Your task to perform on an android device: Show me productivity apps on the Play Store Image 0: 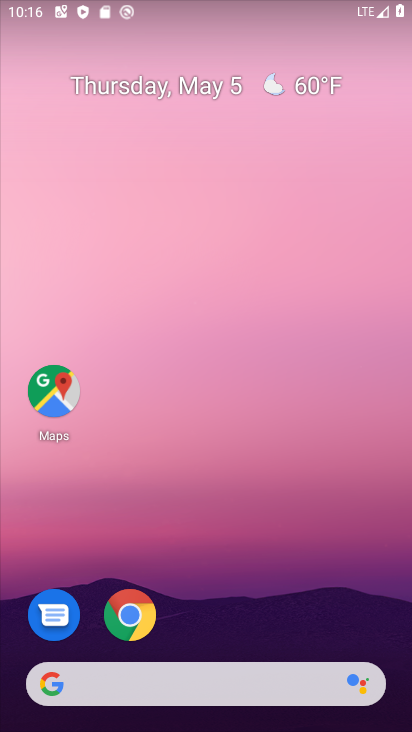
Step 0: drag from (223, 597) to (342, 82)
Your task to perform on an android device: Show me productivity apps on the Play Store Image 1: 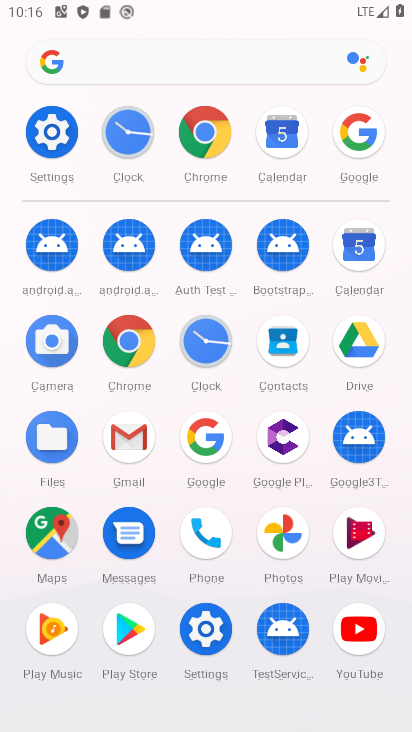
Step 1: click (123, 630)
Your task to perform on an android device: Show me productivity apps on the Play Store Image 2: 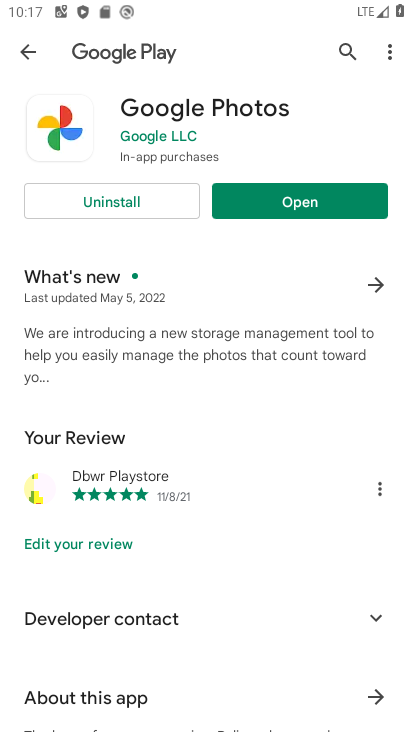
Step 2: press back button
Your task to perform on an android device: Show me productivity apps on the Play Store Image 3: 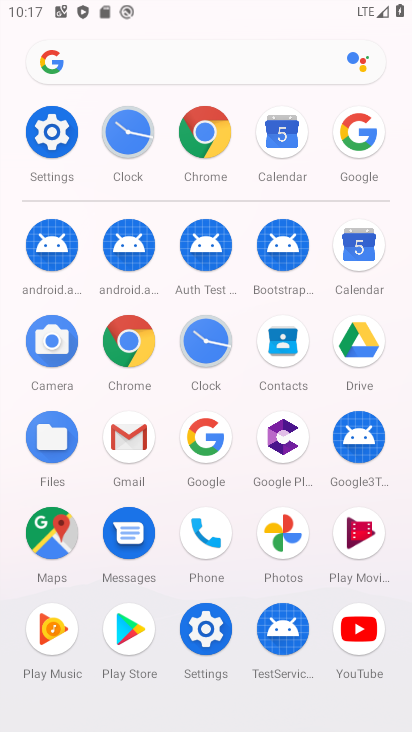
Step 3: click (130, 626)
Your task to perform on an android device: Show me productivity apps on the Play Store Image 4: 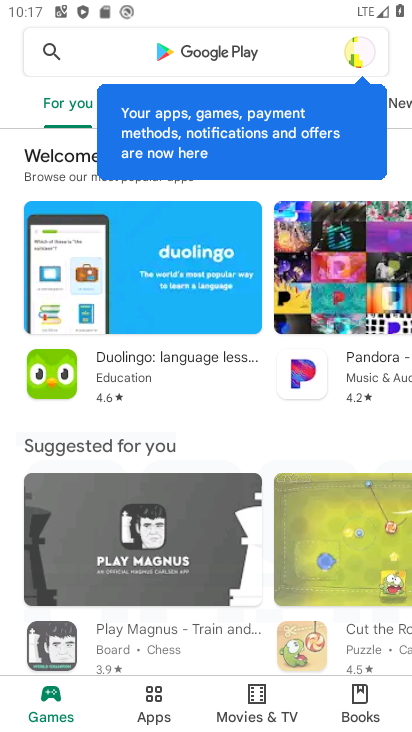
Step 4: click (173, 61)
Your task to perform on an android device: Show me productivity apps on the Play Store Image 5: 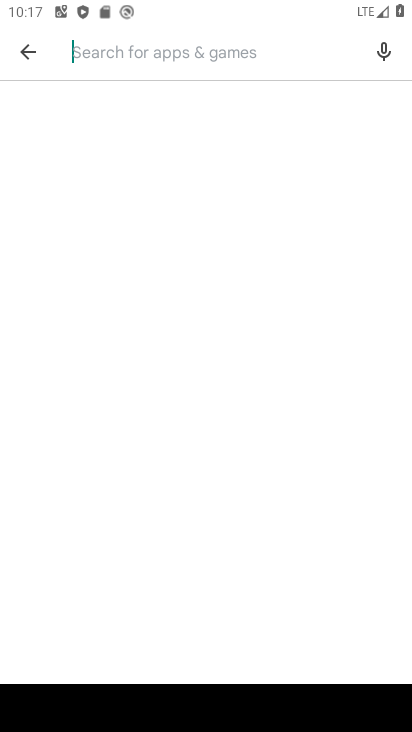
Step 5: click (21, 52)
Your task to perform on an android device: Show me productivity apps on the Play Store Image 6: 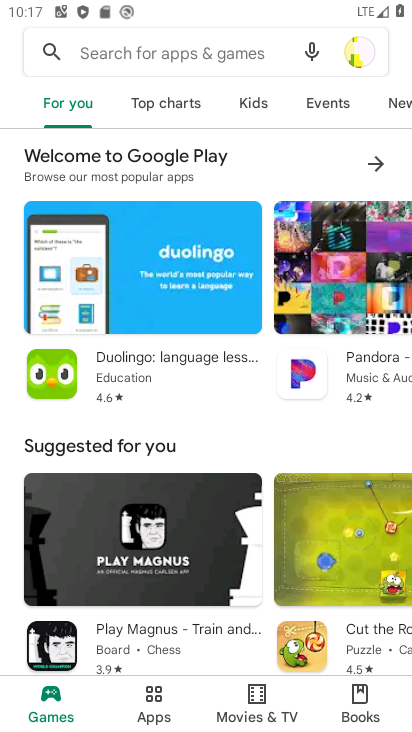
Step 6: drag from (178, 435) to (267, 340)
Your task to perform on an android device: Show me productivity apps on the Play Store Image 7: 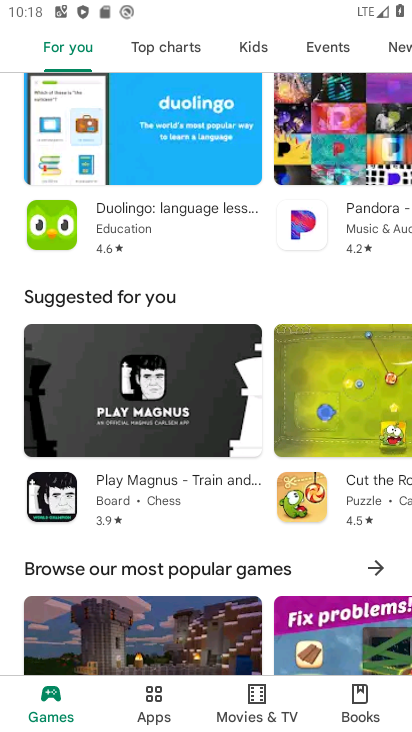
Step 7: click (150, 709)
Your task to perform on an android device: Show me productivity apps on the Play Store Image 8: 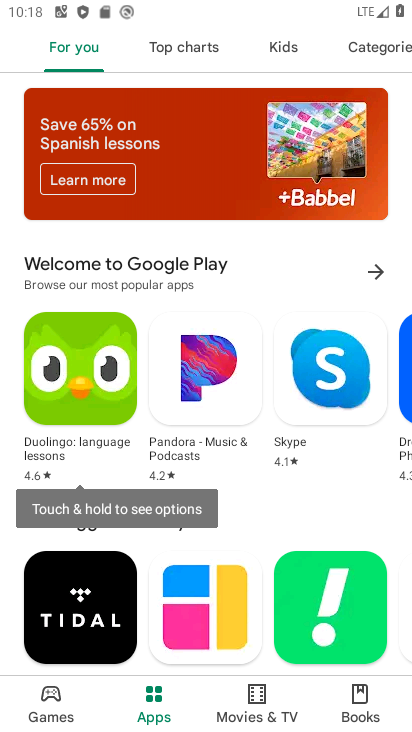
Step 8: task complete